Your task to perform on an android device: Search for flights from NYC to Paris Image 0: 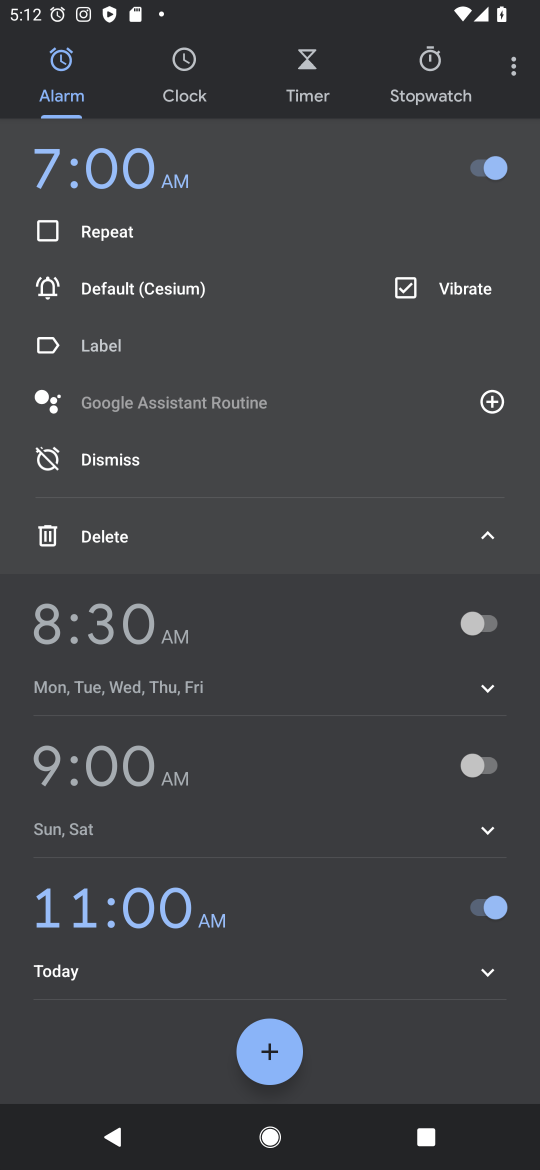
Step 0: press home button
Your task to perform on an android device: Search for flights from NYC to Paris Image 1: 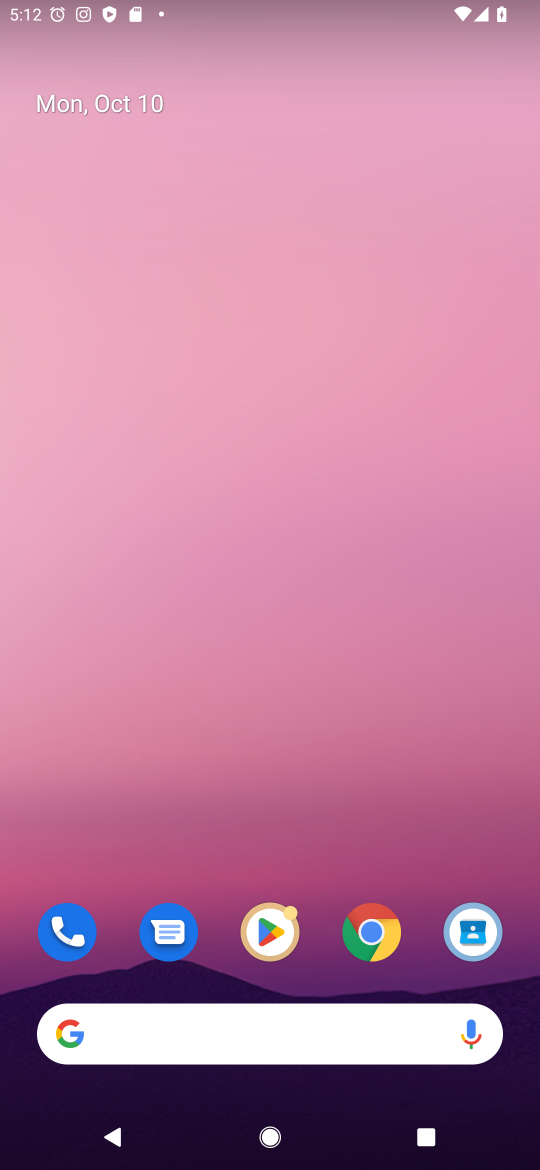
Step 1: click (303, 1035)
Your task to perform on an android device: Search for flights from NYC to Paris Image 2: 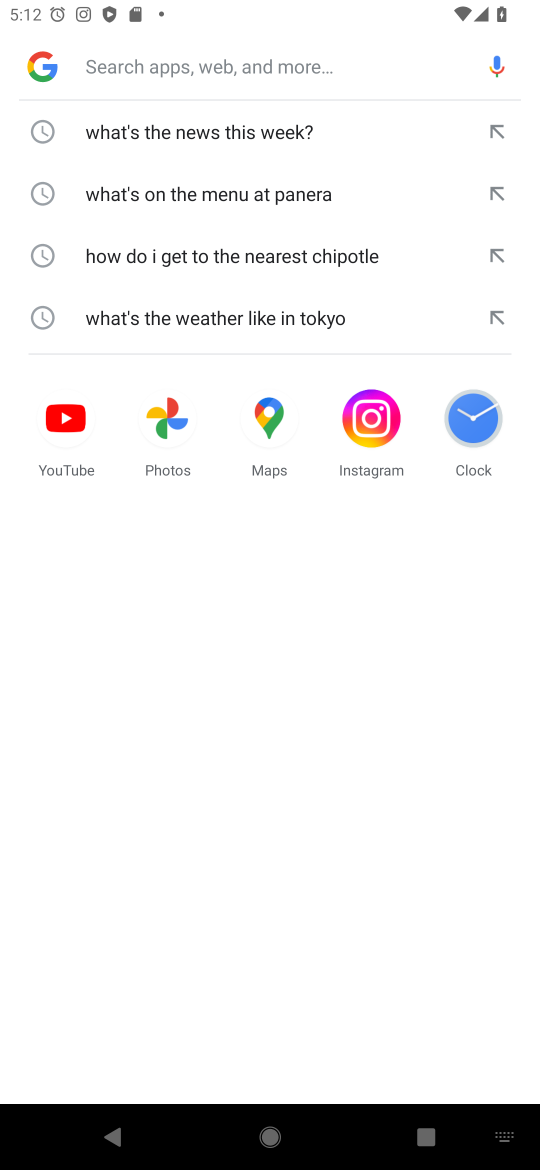
Step 2: type "flights from NYC to Paris"
Your task to perform on an android device: Search for flights from NYC to Paris Image 3: 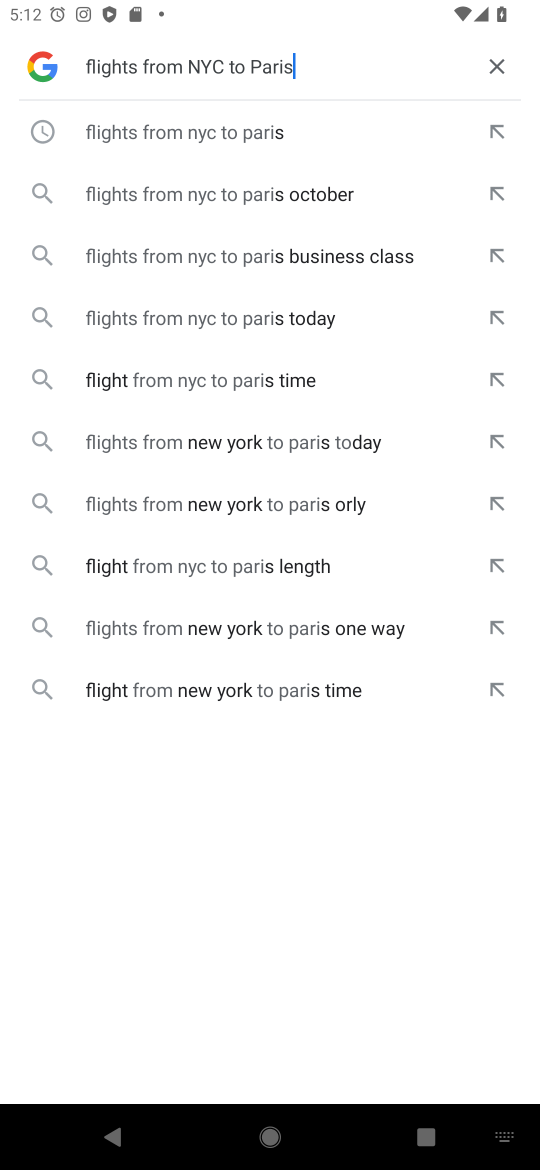
Step 3: press enter
Your task to perform on an android device: Search for flights from NYC to Paris Image 4: 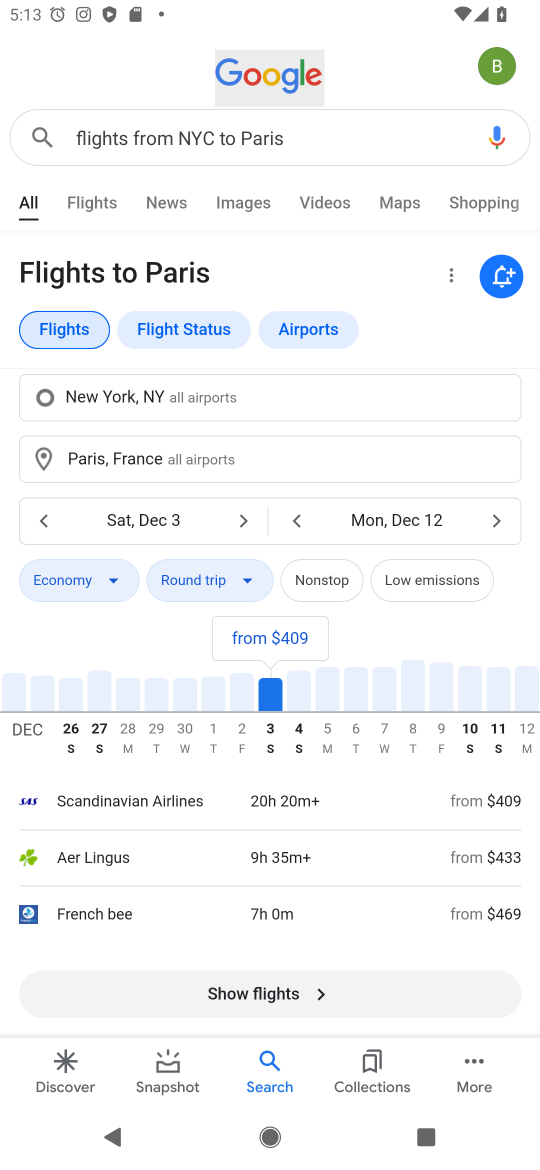
Step 4: click (273, 989)
Your task to perform on an android device: Search for flights from NYC to Paris Image 5: 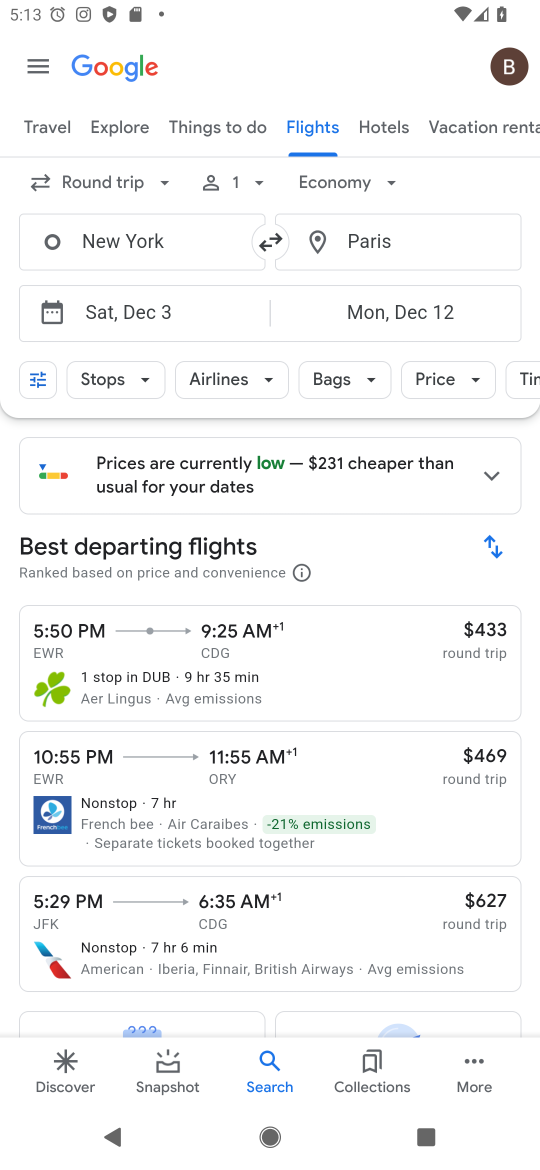
Step 5: task complete